Your task to perform on an android device: search for starred emails in the gmail app Image 0: 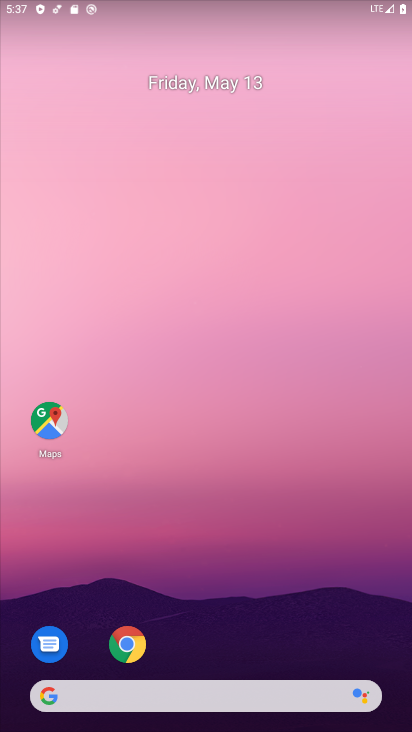
Step 0: drag from (210, 646) to (292, 141)
Your task to perform on an android device: search for starred emails in the gmail app Image 1: 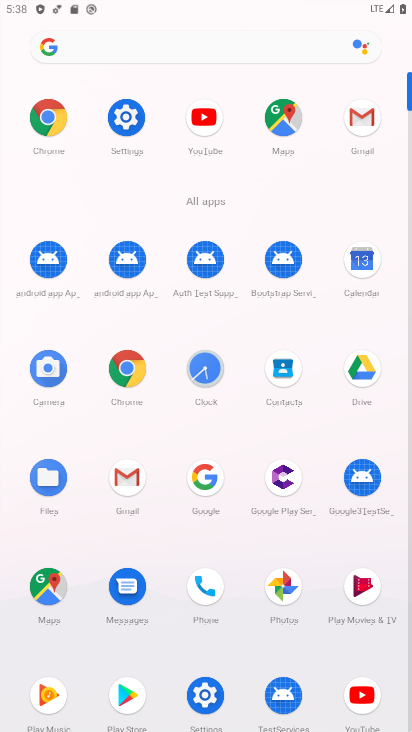
Step 1: click (131, 482)
Your task to perform on an android device: search for starred emails in the gmail app Image 2: 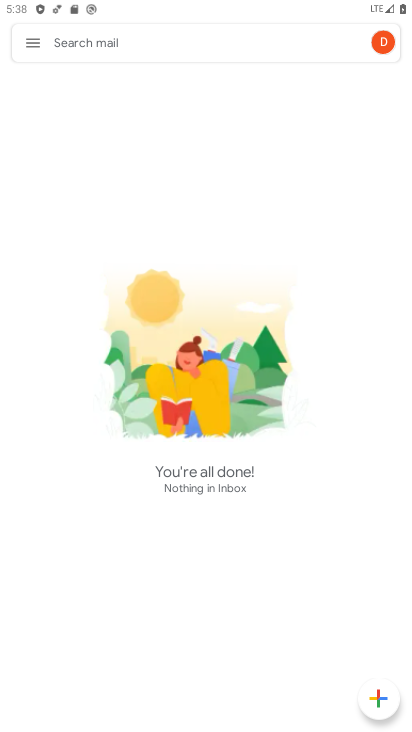
Step 2: click (41, 44)
Your task to perform on an android device: search for starred emails in the gmail app Image 3: 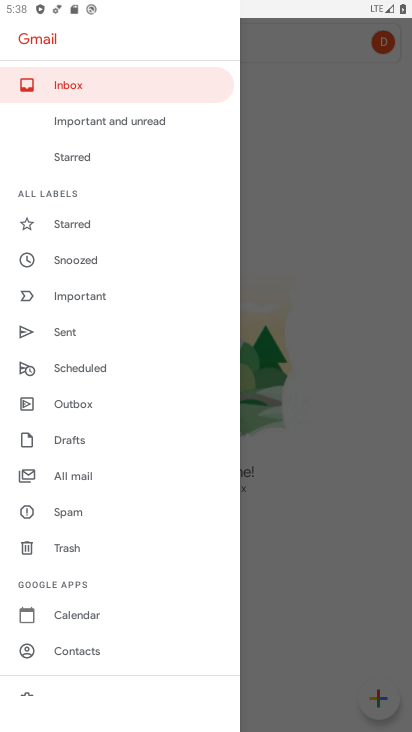
Step 3: click (79, 220)
Your task to perform on an android device: search for starred emails in the gmail app Image 4: 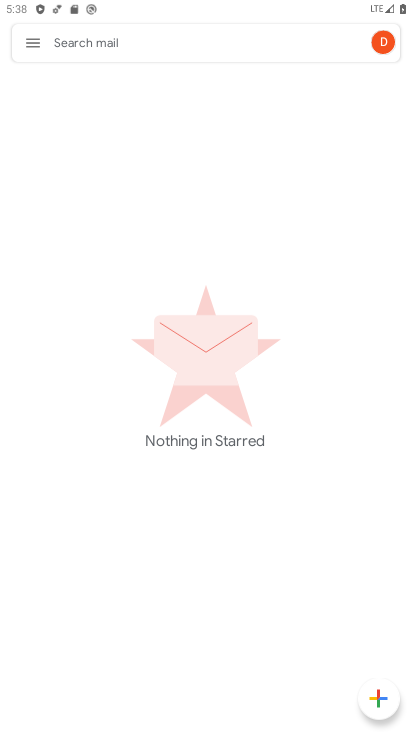
Step 4: task complete